Your task to perform on an android device: Clear all items from cart on target. Add lg ultragear to the cart on target Image 0: 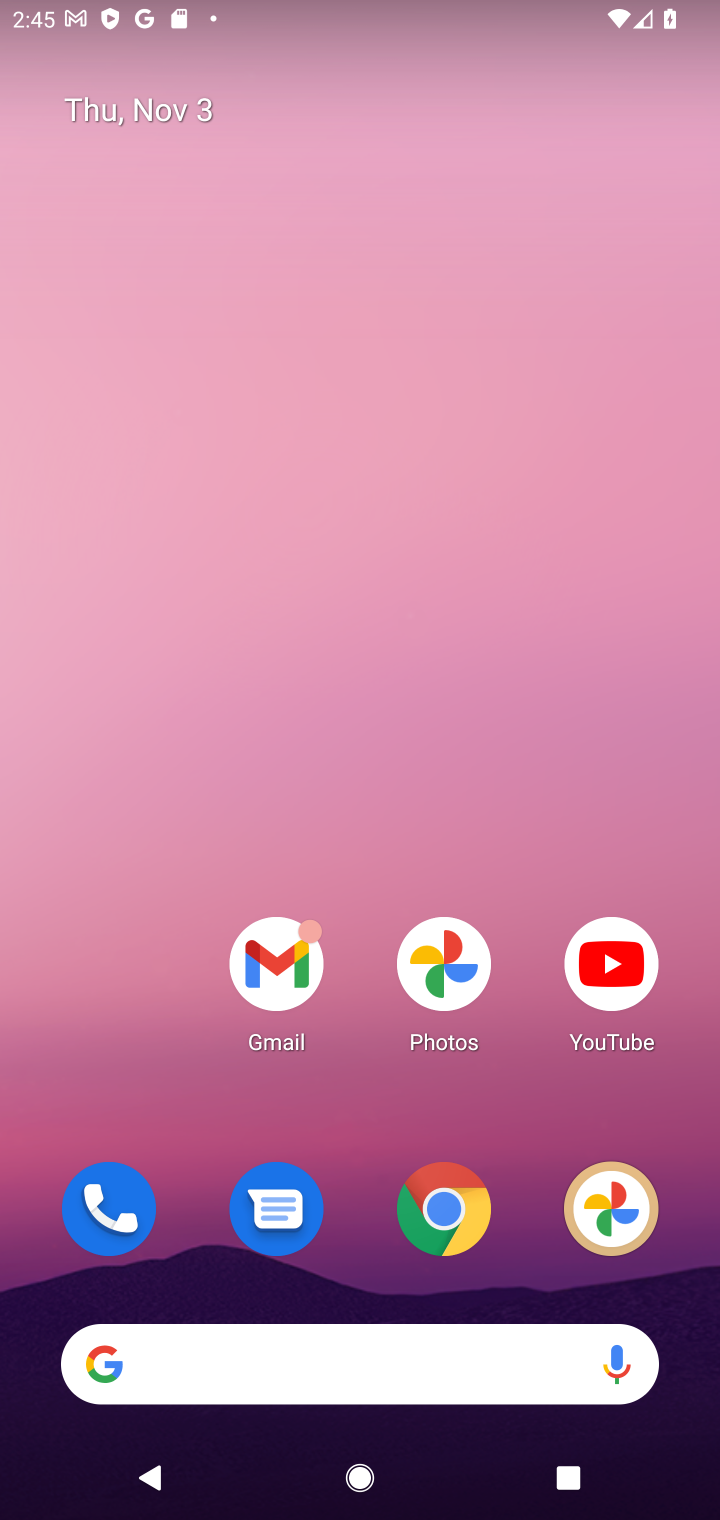
Step 0: click (426, 1201)
Your task to perform on an android device: Clear all items from cart on target. Add lg ultragear to the cart on target Image 1: 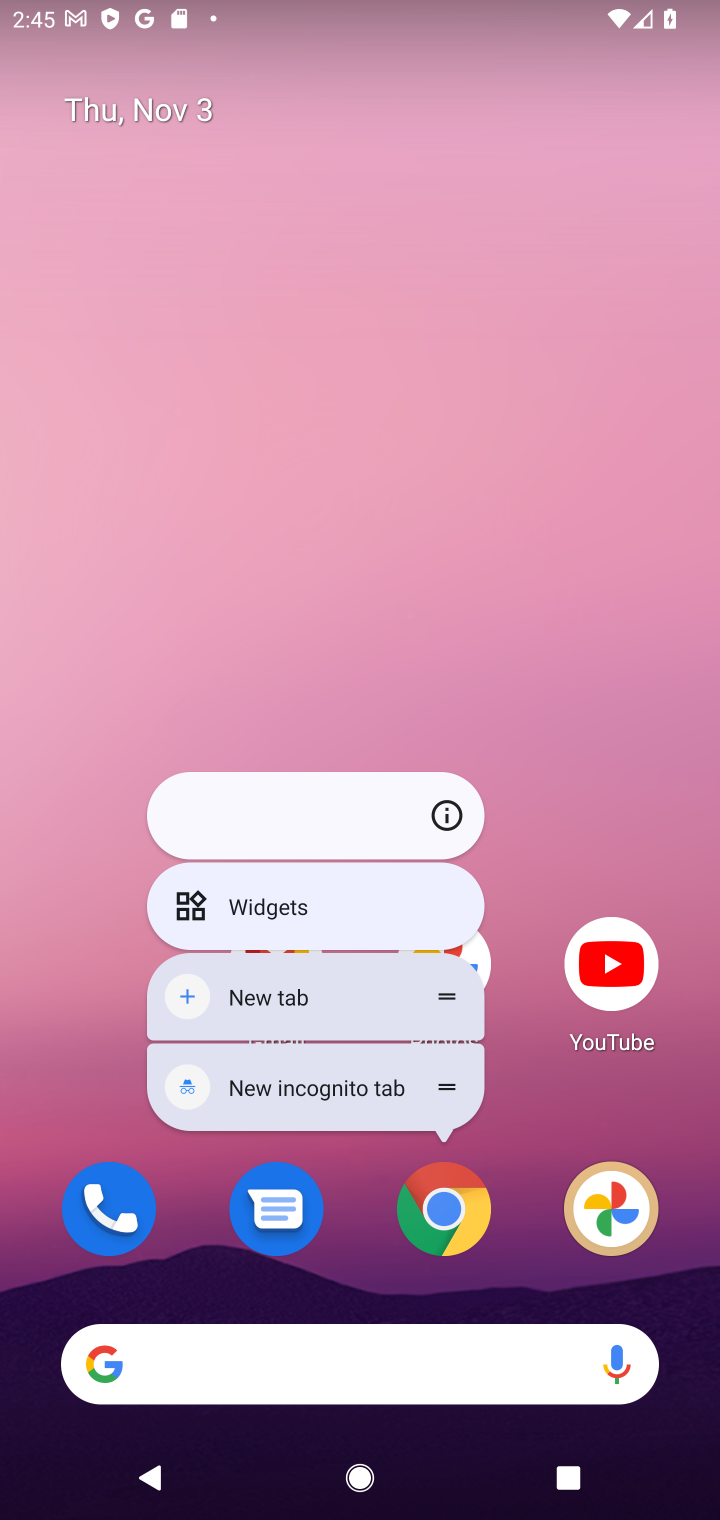
Step 1: click (468, 1232)
Your task to perform on an android device: Clear all items from cart on target. Add lg ultragear to the cart on target Image 2: 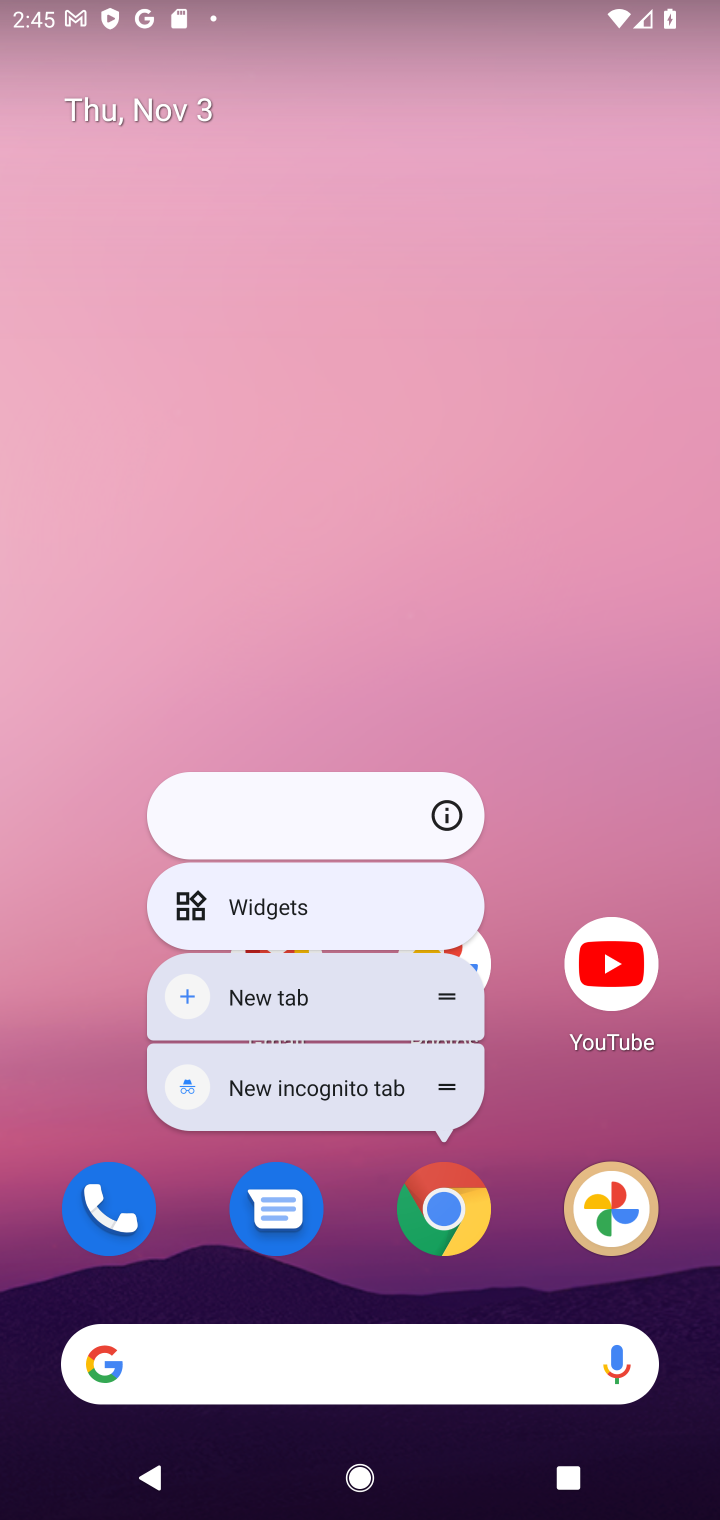
Step 2: click (450, 1219)
Your task to perform on an android device: Clear all items from cart on target. Add lg ultragear to the cart on target Image 3: 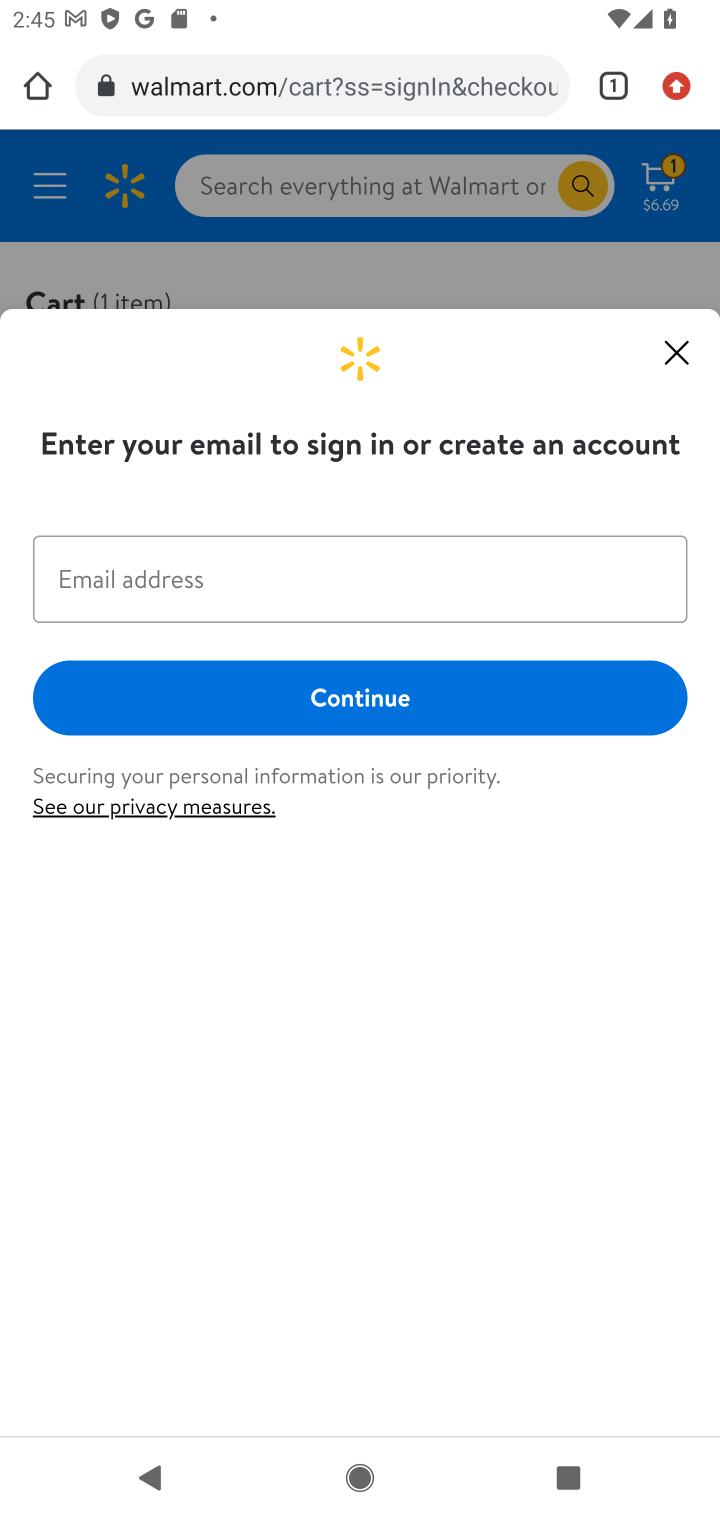
Step 3: click (357, 100)
Your task to perform on an android device: Clear all items from cart on target. Add lg ultragear to the cart on target Image 4: 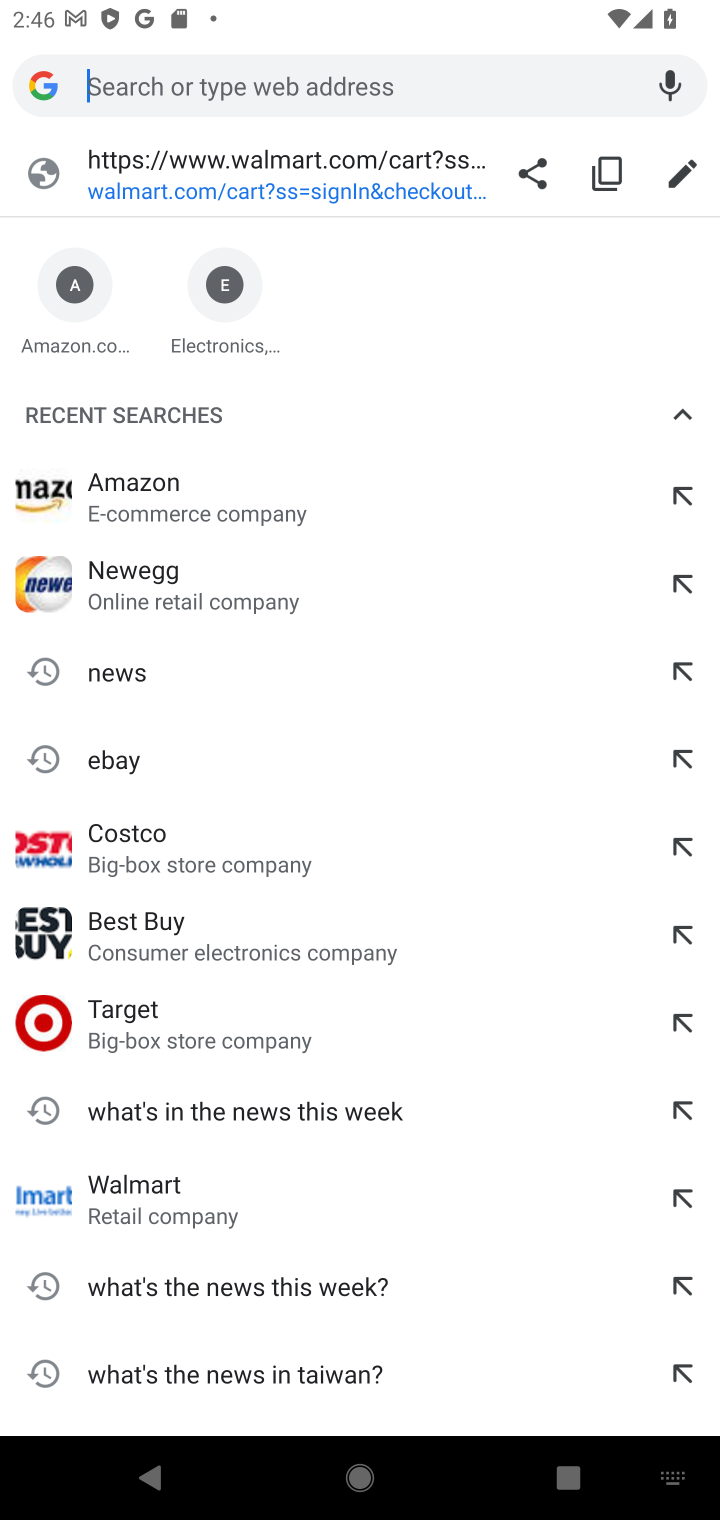
Step 4: type "target"
Your task to perform on an android device: Clear all items from cart on target. Add lg ultragear to the cart on target Image 5: 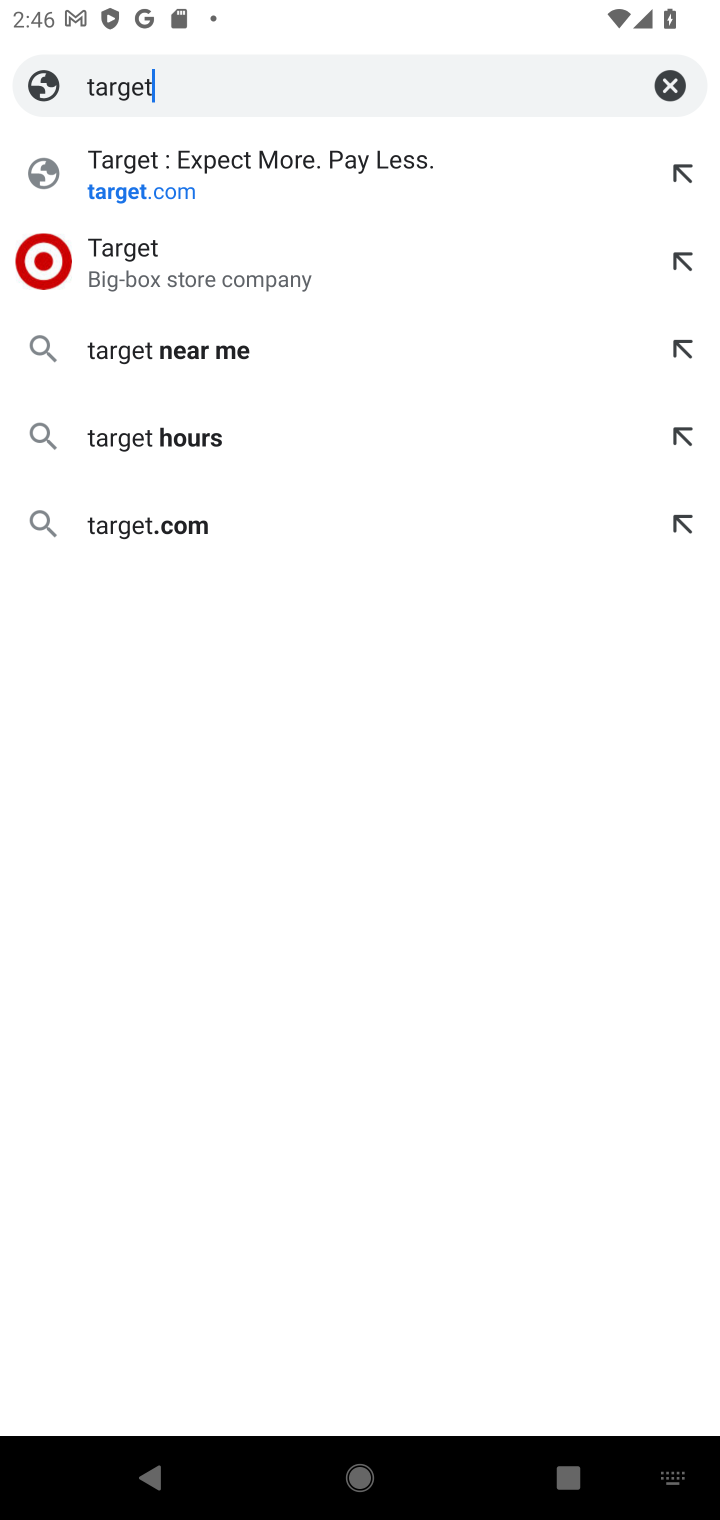
Step 5: click (336, 169)
Your task to perform on an android device: Clear all items from cart on target. Add lg ultragear to the cart on target Image 6: 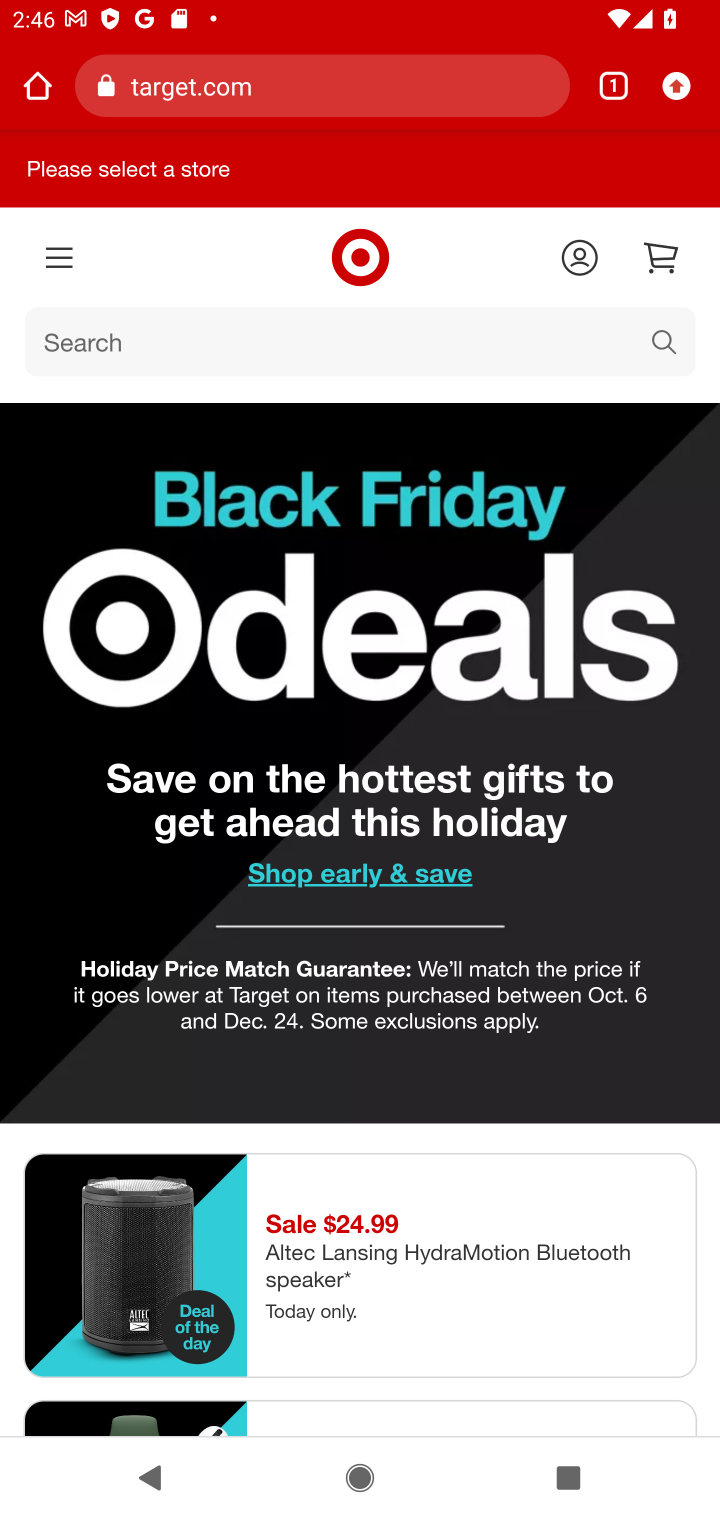
Step 6: click (335, 357)
Your task to perform on an android device: Clear all items from cart on target. Add lg ultragear to the cart on target Image 7: 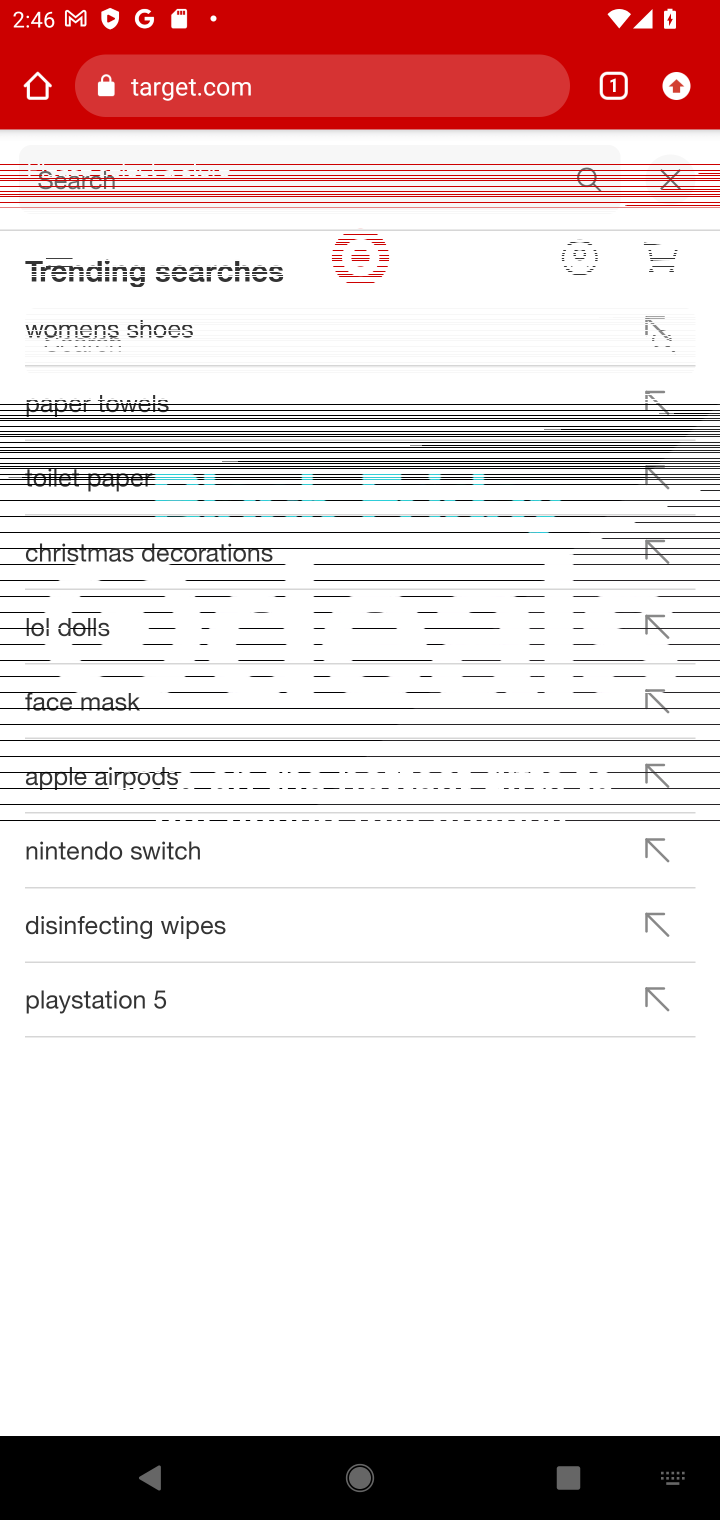
Step 7: type "lg ultraclear"
Your task to perform on an android device: Clear all items from cart on target. Add lg ultragear to the cart on target Image 8: 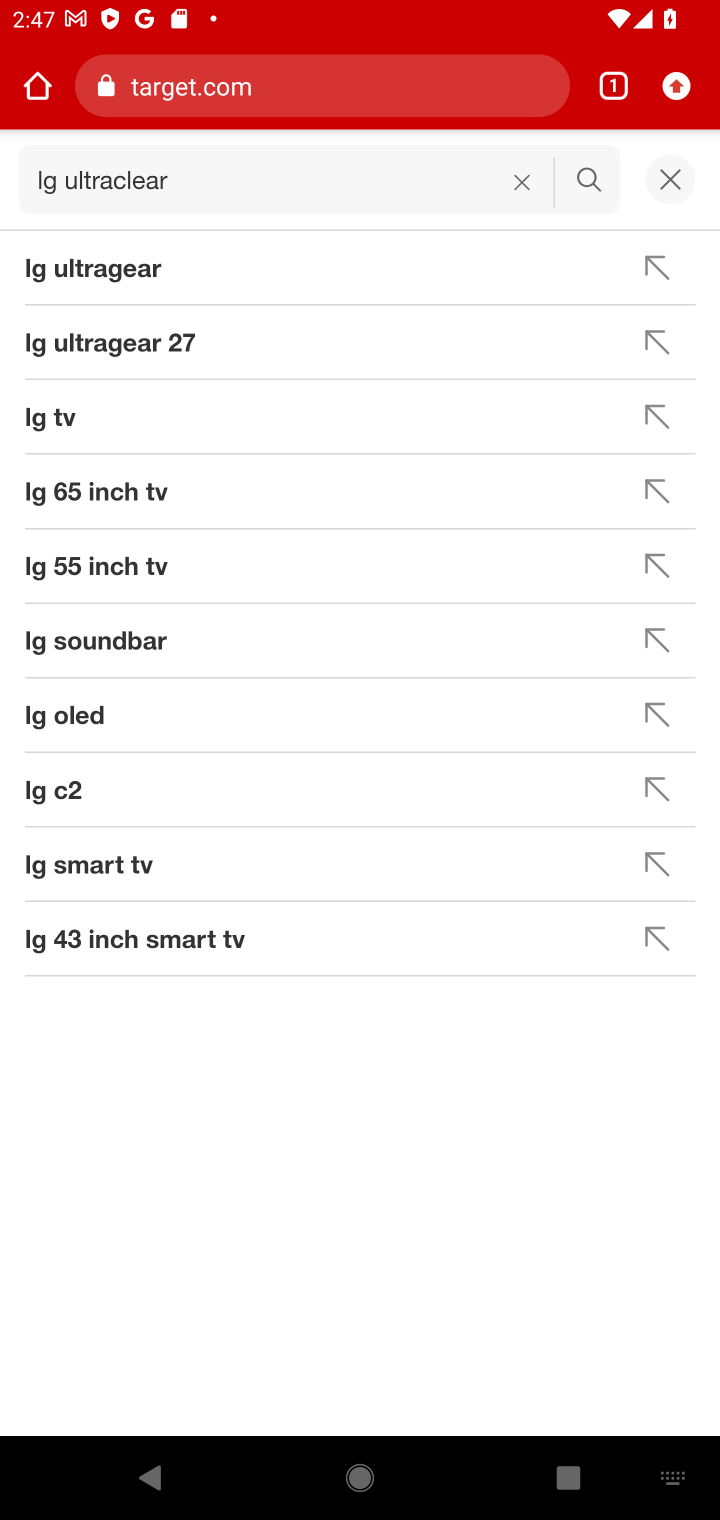
Step 8: click (170, 270)
Your task to perform on an android device: Clear all items from cart on target. Add lg ultragear to the cart on target Image 9: 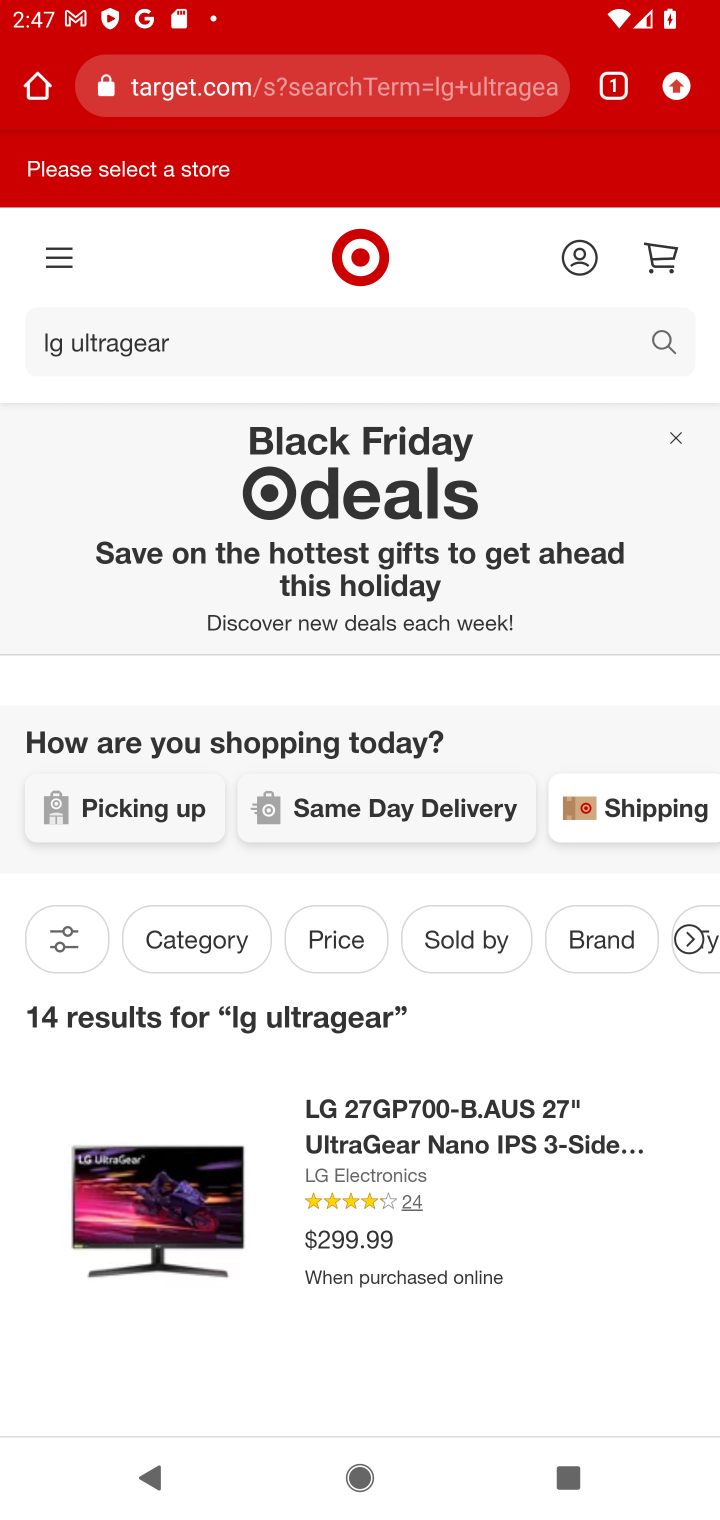
Step 9: drag from (487, 1233) to (439, 873)
Your task to perform on an android device: Clear all items from cart on target. Add lg ultragear to the cart on target Image 10: 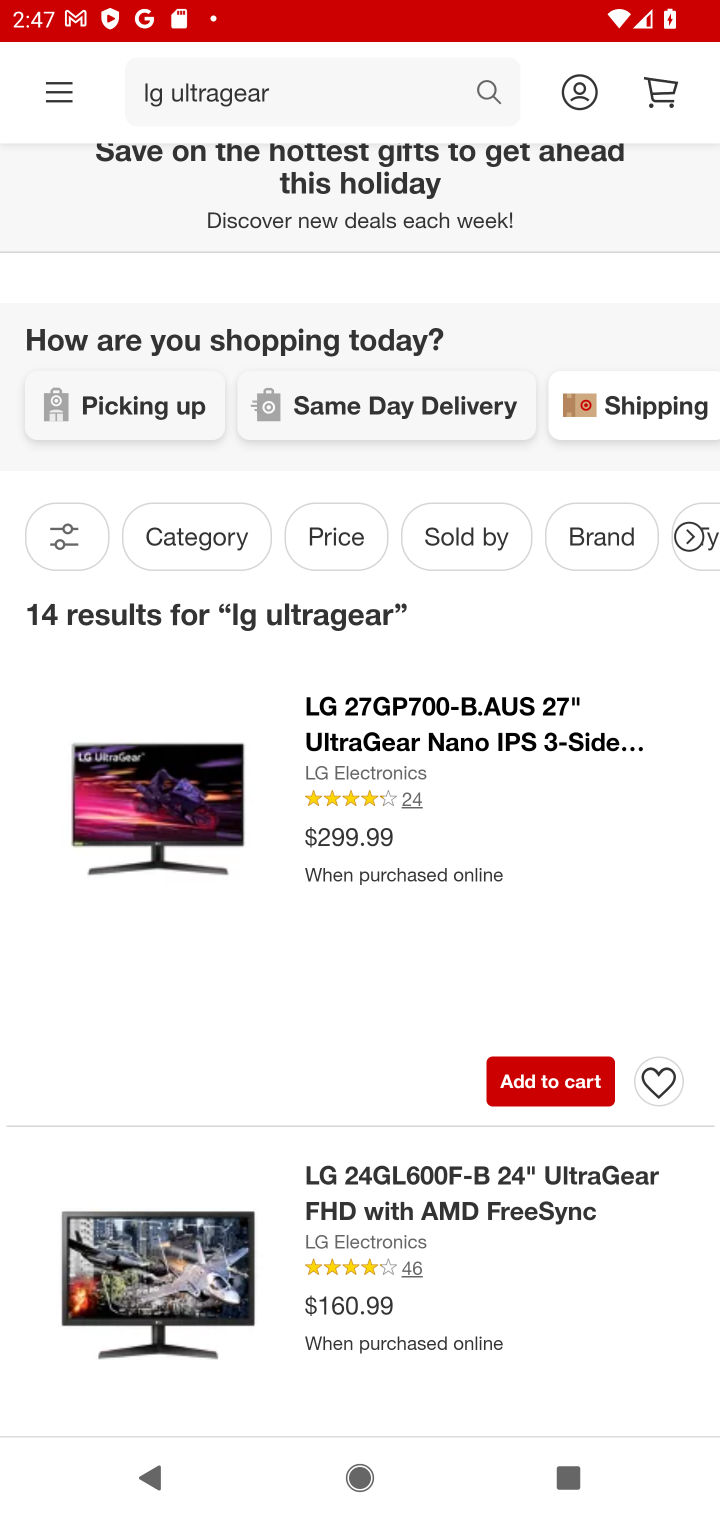
Step 10: click (183, 874)
Your task to perform on an android device: Clear all items from cart on target. Add lg ultragear to the cart on target Image 11: 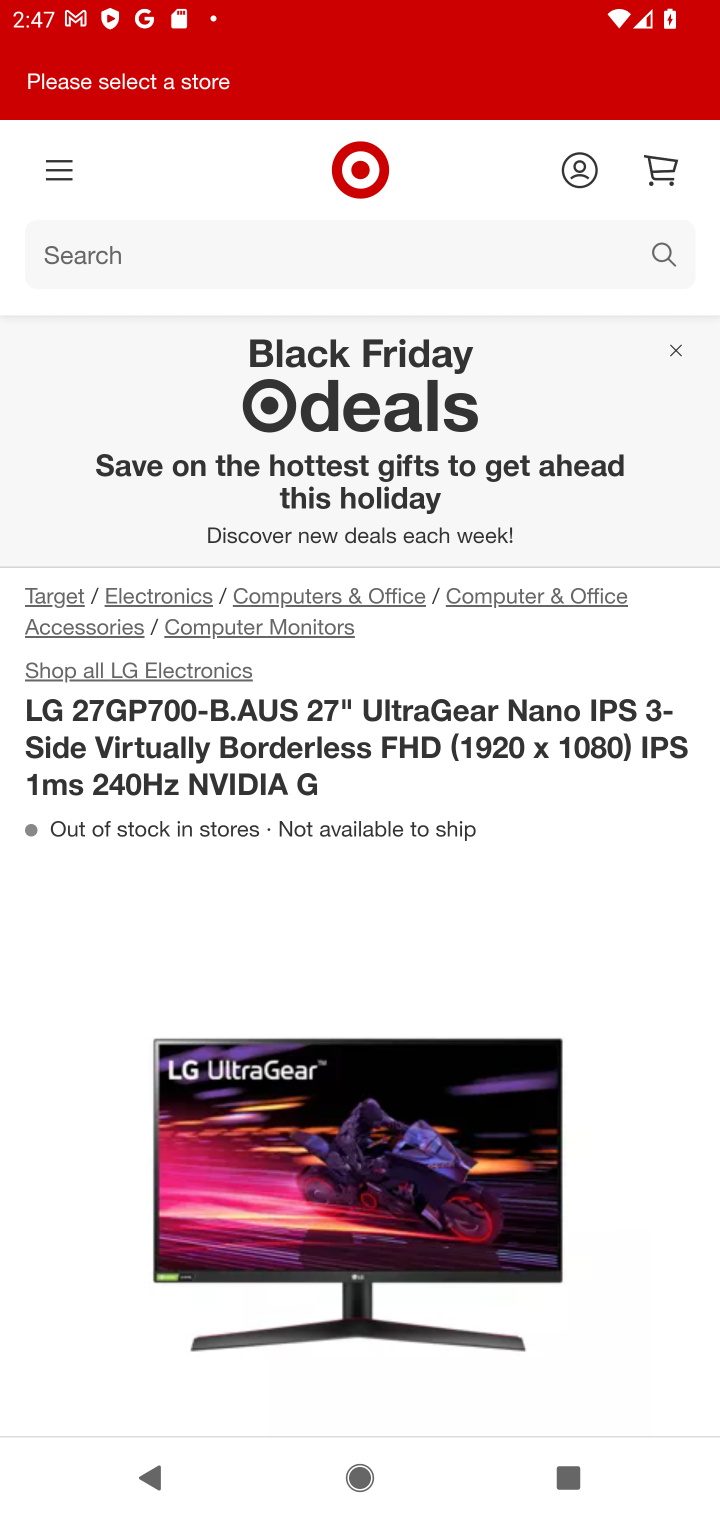
Step 11: drag from (613, 1212) to (458, 353)
Your task to perform on an android device: Clear all items from cart on target. Add lg ultragear to the cart on target Image 12: 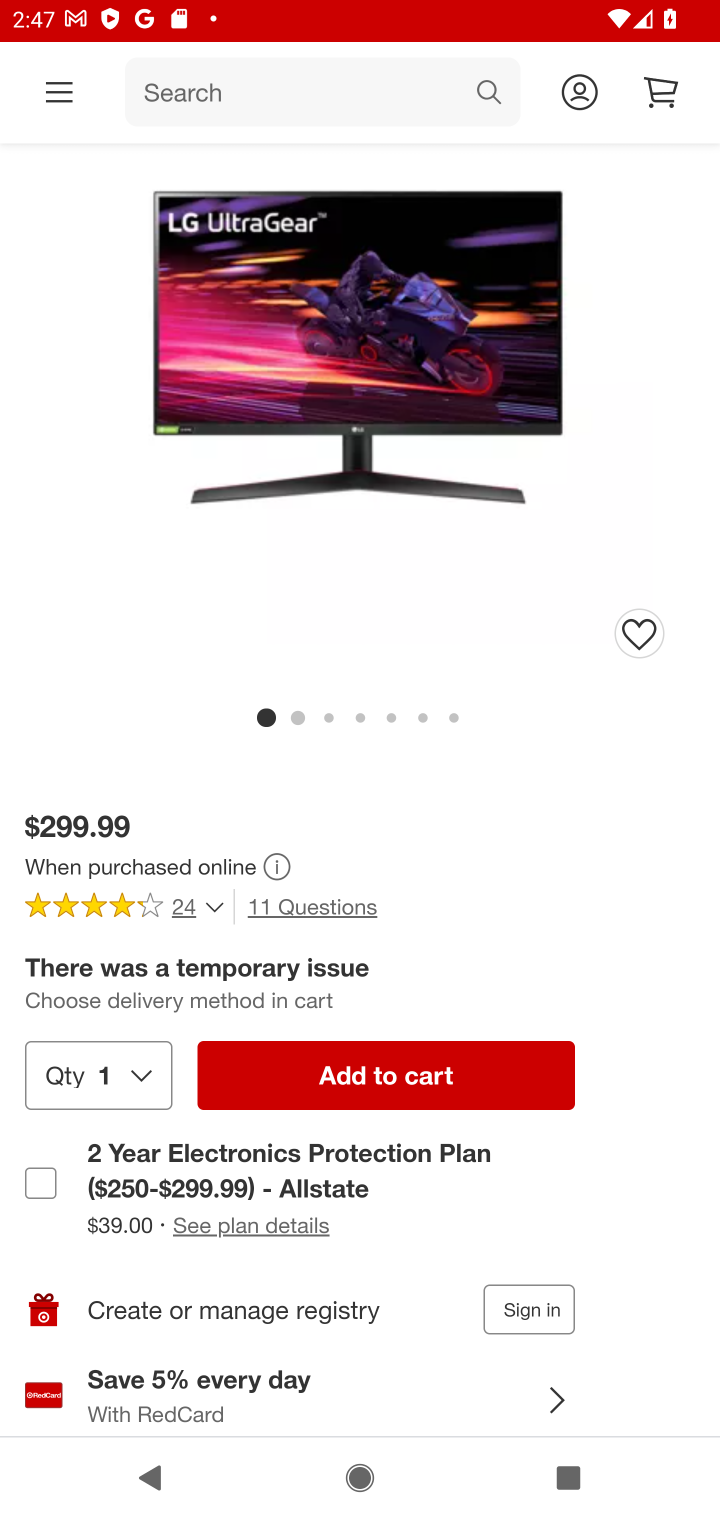
Step 12: click (473, 1059)
Your task to perform on an android device: Clear all items from cart on target. Add lg ultragear to the cart on target Image 13: 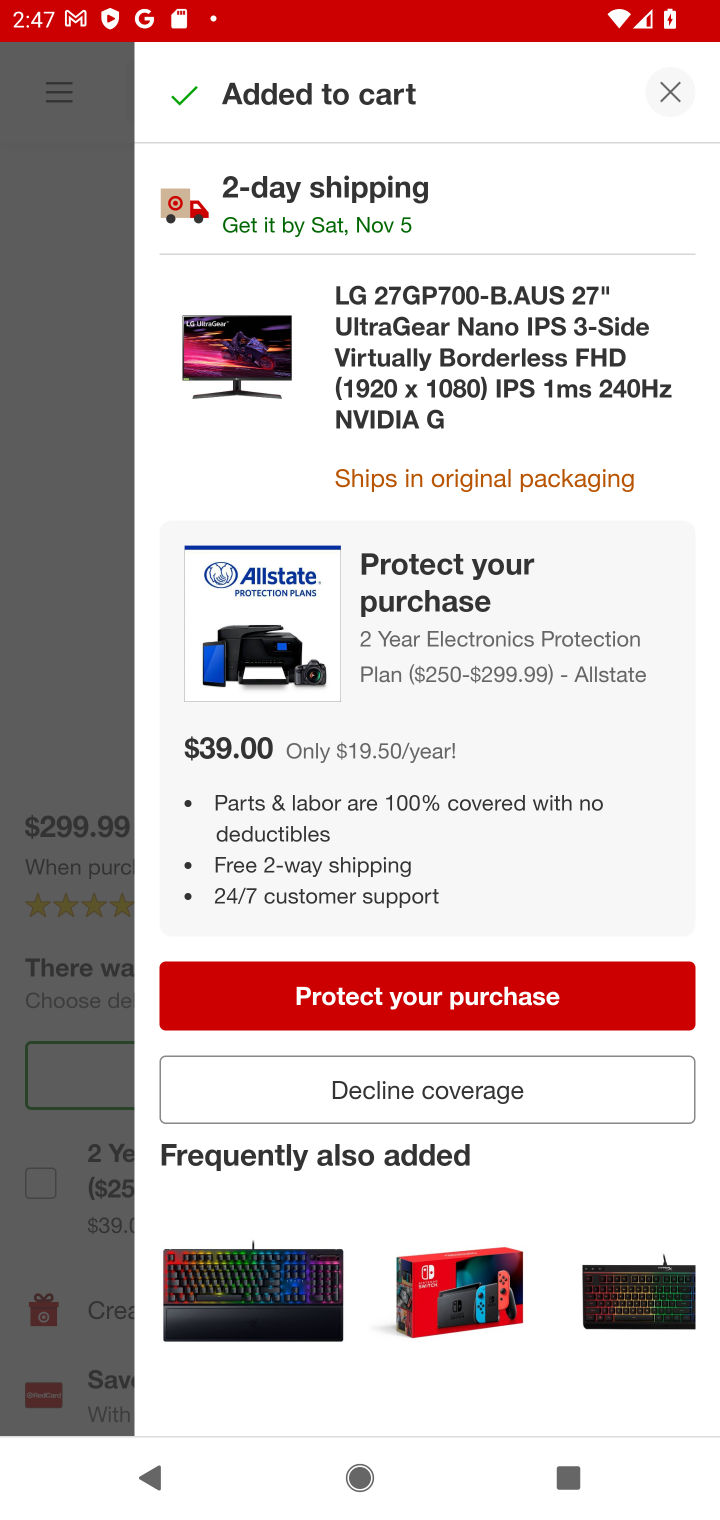
Step 13: task complete